Your task to perform on an android device: toggle pop-ups in chrome Image 0: 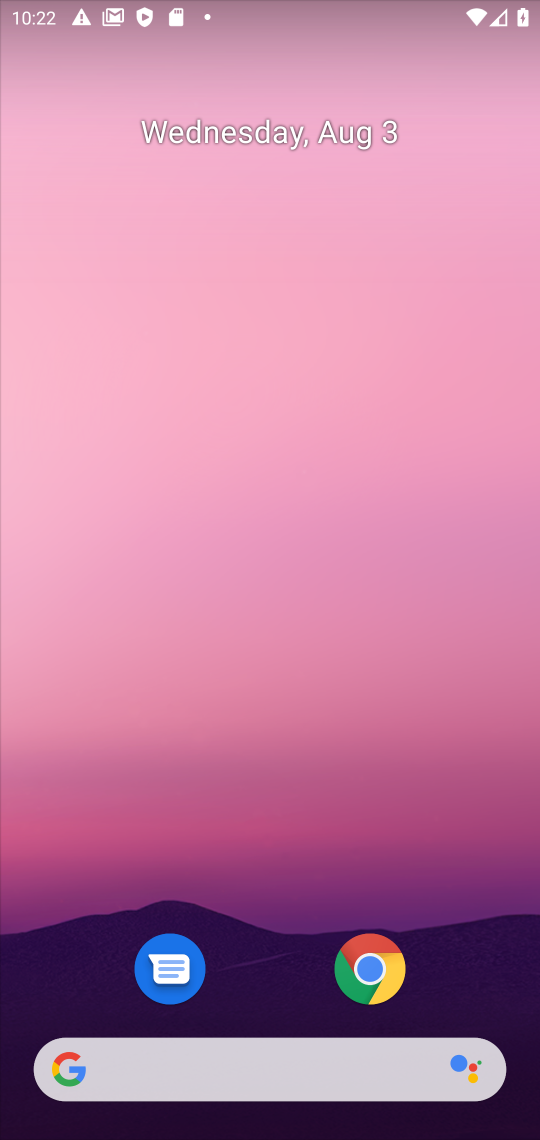
Step 0: click (357, 970)
Your task to perform on an android device: toggle pop-ups in chrome Image 1: 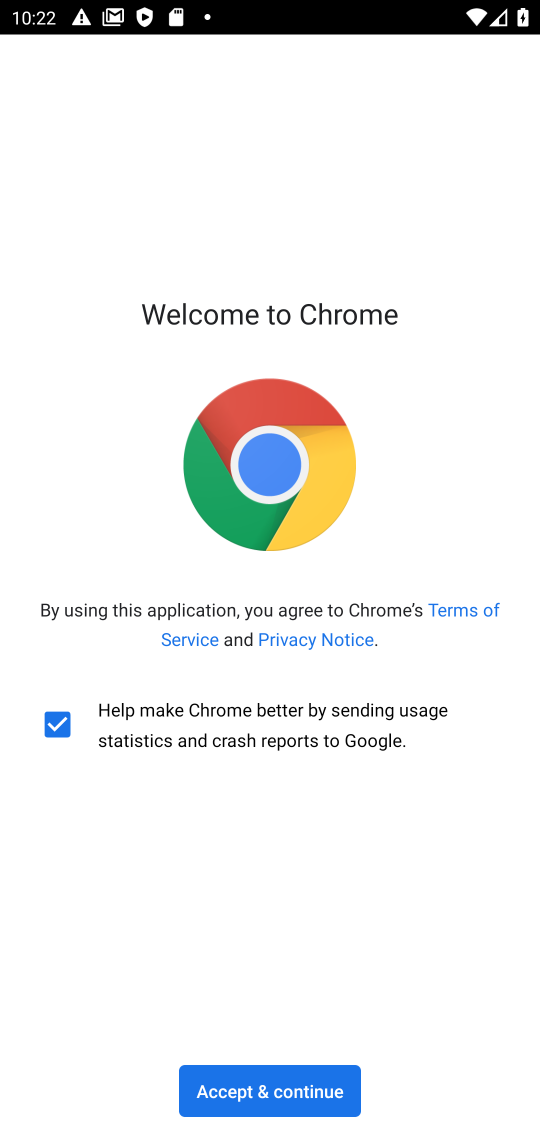
Step 1: click (272, 1084)
Your task to perform on an android device: toggle pop-ups in chrome Image 2: 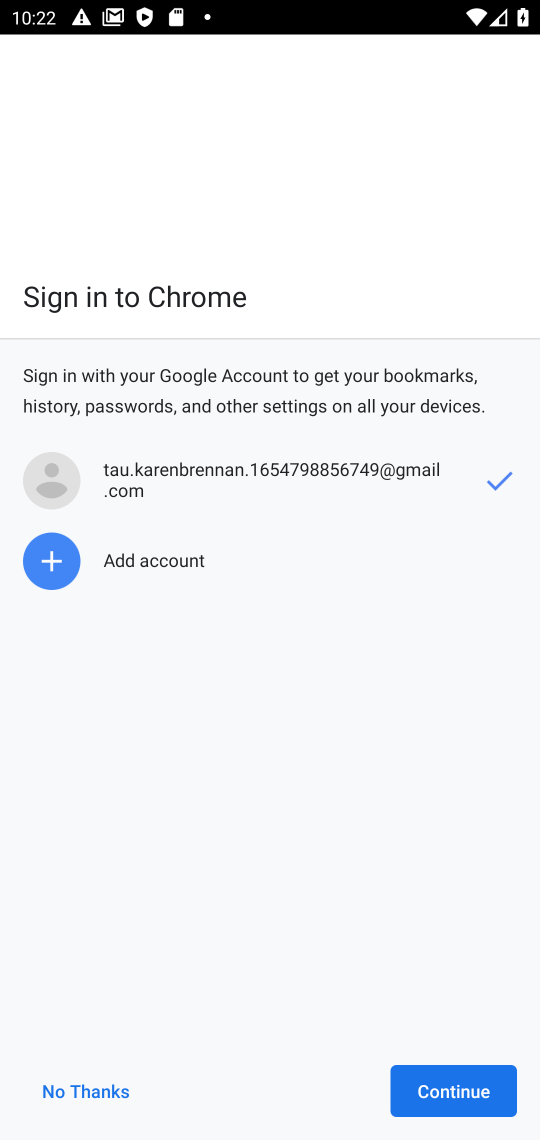
Step 2: click (477, 1088)
Your task to perform on an android device: toggle pop-ups in chrome Image 3: 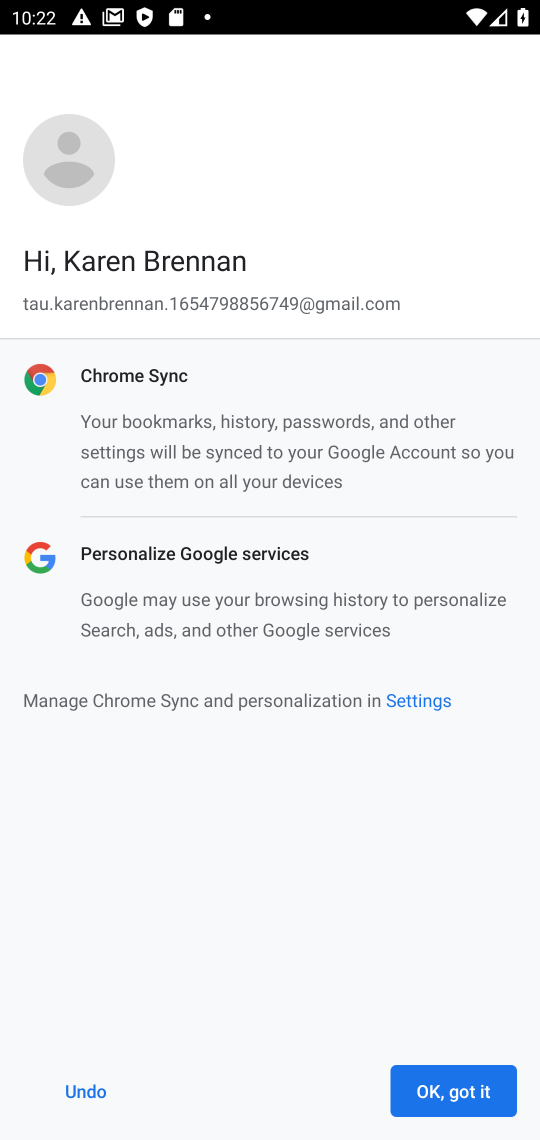
Step 3: click (485, 1078)
Your task to perform on an android device: toggle pop-ups in chrome Image 4: 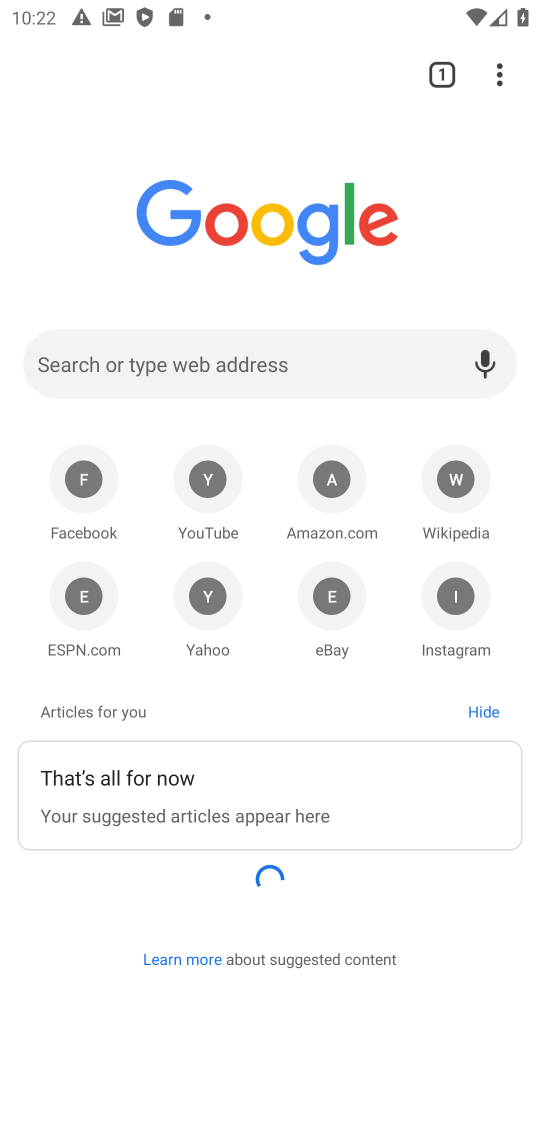
Step 4: drag from (495, 67) to (216, 629)
Your task to perform on an android device: toggle pop-ups in chrome Image 5: 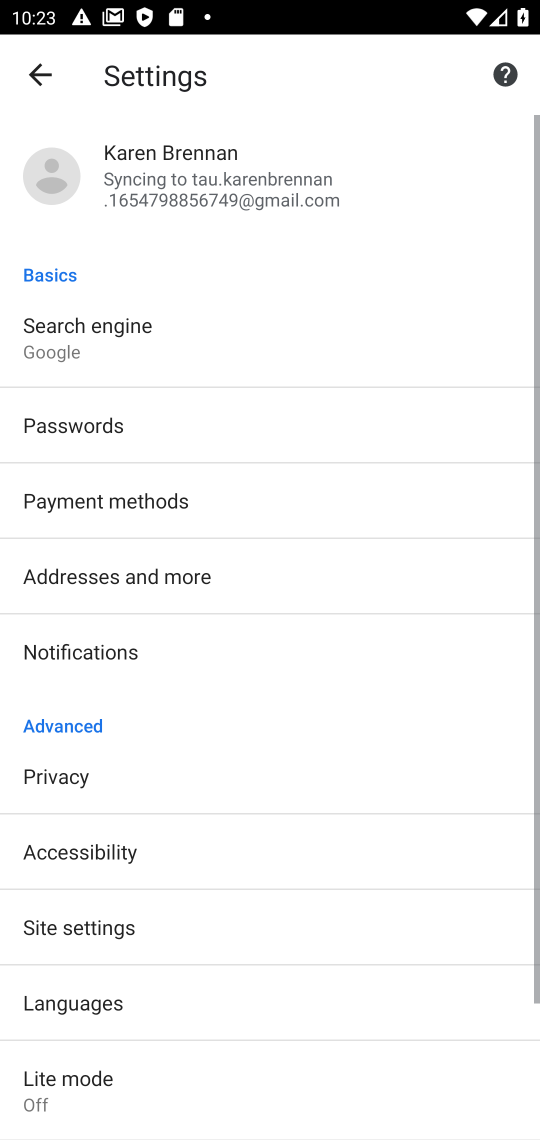
Step 5: drag from (123, 910) to (96, 137)
Your task to perform on an android device: toggle pop-ups in chrome Image 6: 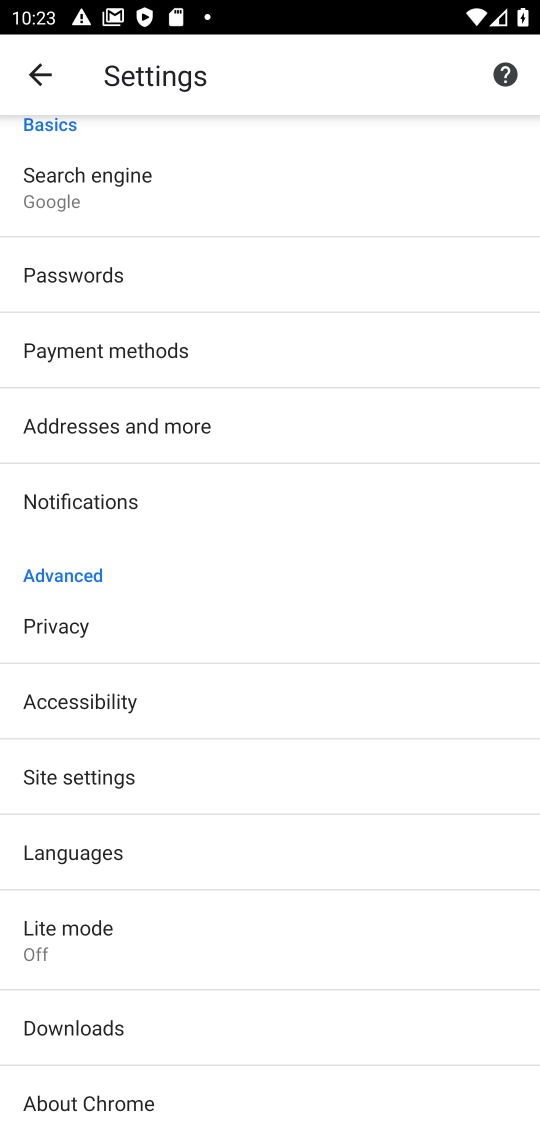
Step 6: click (11, 767)
Your task to perform on an android device: toggle pop-ups in chrome Image 7: 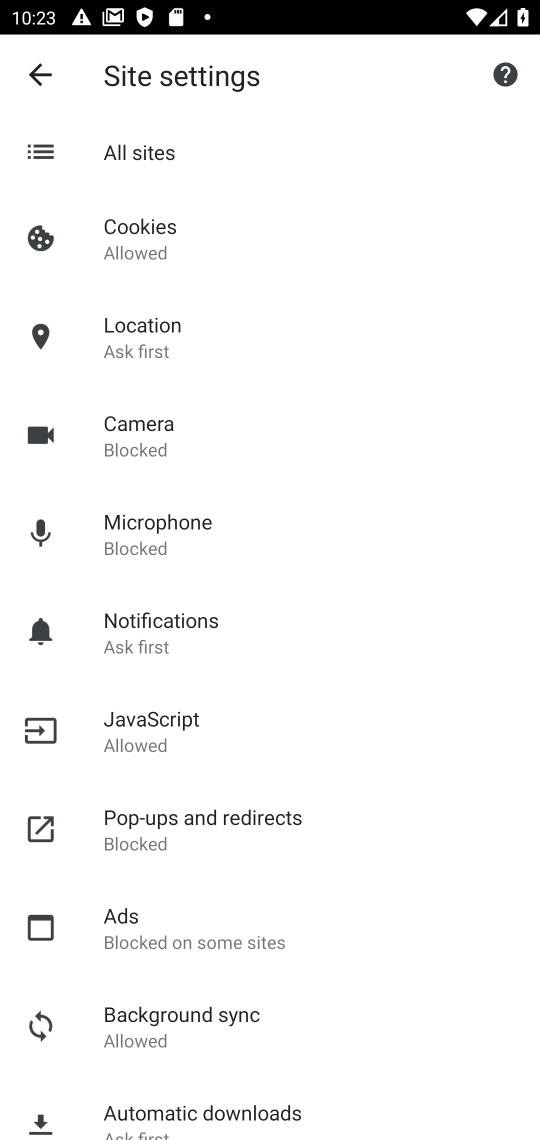
Step 7: click (141, 837)
Your task to perform on an android device: toggle pop-ups in chrome Image 8: 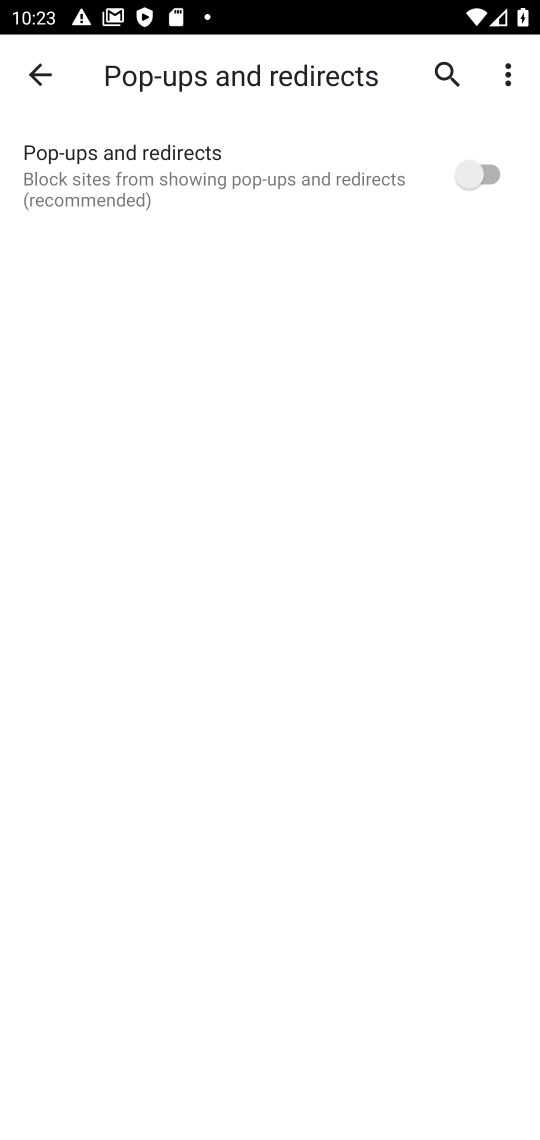
Step 8: click (459, 178)
Your task to perform on an android device: toggle pop-ups in chrome Image 9: 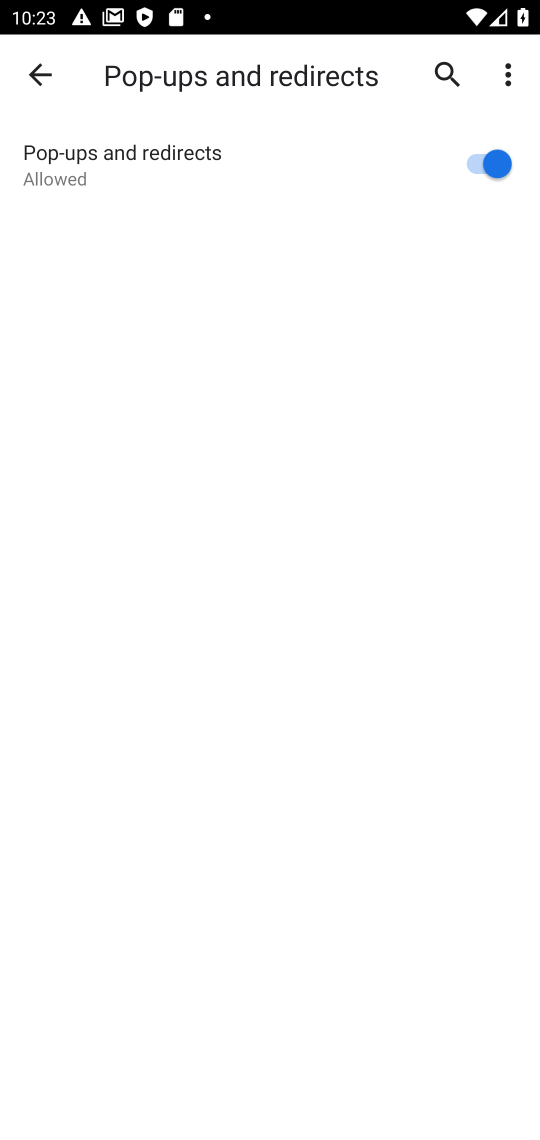
Step 9: task complete